Your task to perform on an android device: delete location history Image 0: 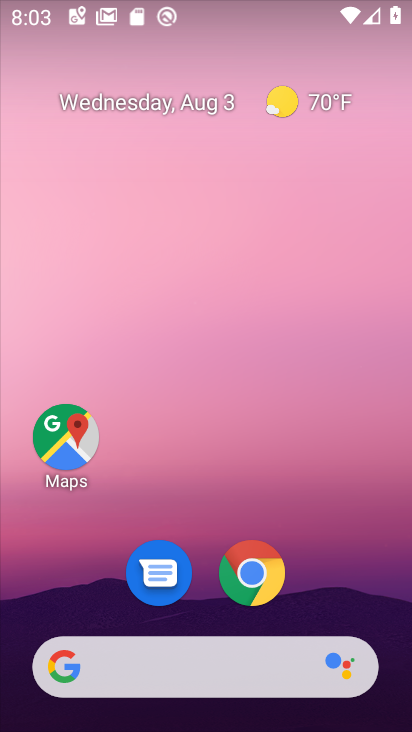
Step 0: click (64, 442)
Your task to perform on an android device: delete location history Image 1: 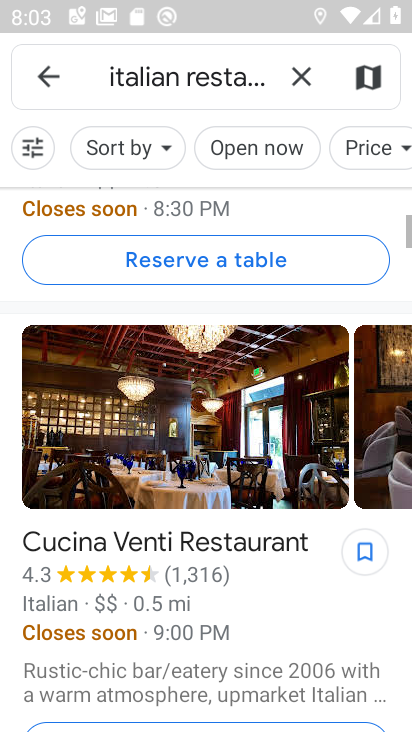
Step 1: click (298, 79)
Your task to perform on an android device: delete location history Image 2: 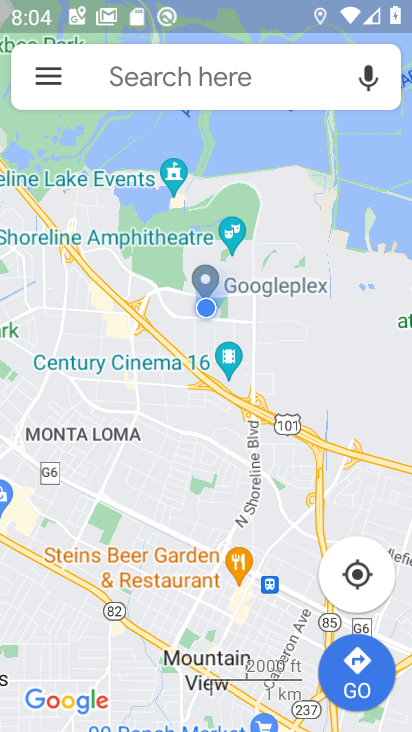
Step 2: click (41, 74)
Your task to perform on an android device: delete location history Image 3: 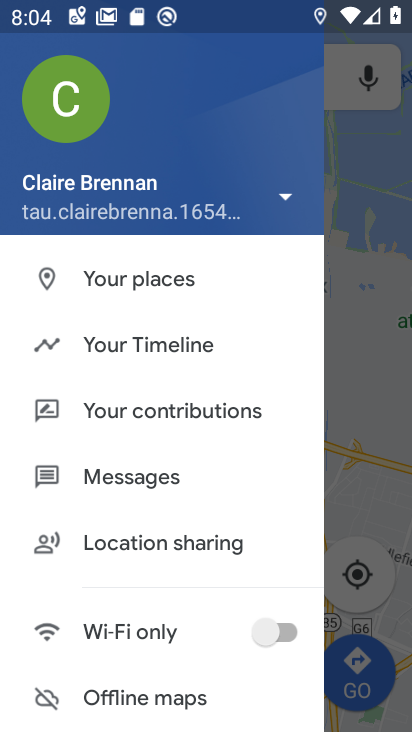
Step 3: click (118, 342)
Your task to perform on an android device: delete location history Image 4: 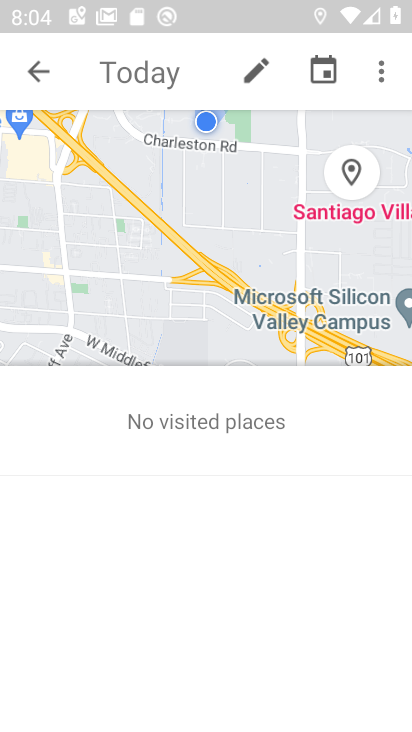
Step 4: click (386, 69)
Your task to perform on an android device: delete location history Image 5: 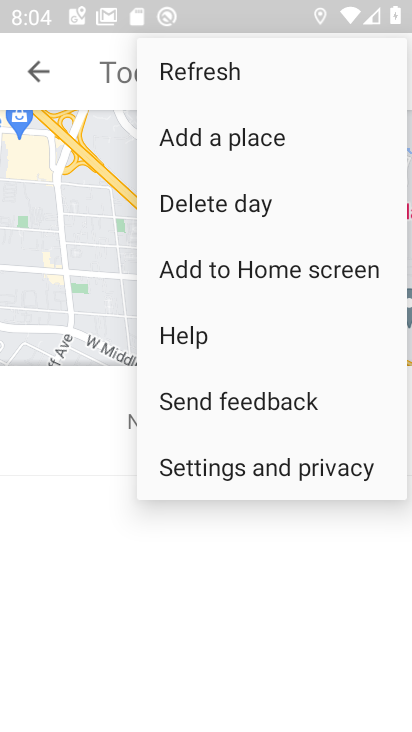
Step 5: click (213, 467)
Your task to perform on an android device: delete location history Image 6: 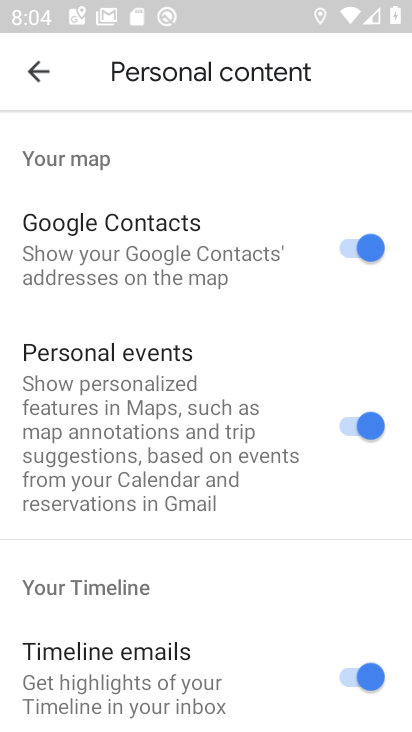
Step 6: drag from (180, 560) to (140, 100)
Your task to perform on an android device: delete location history Image 7: 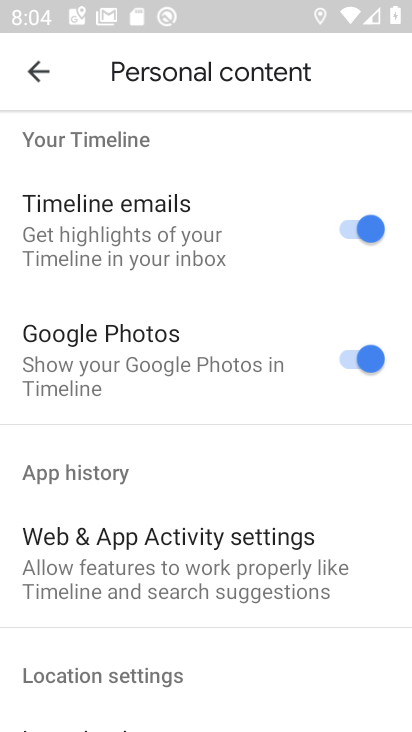
Step 7: drag from (157, 519) to (161, 113)
Your task to perform on an android device: delete location history Image 8: 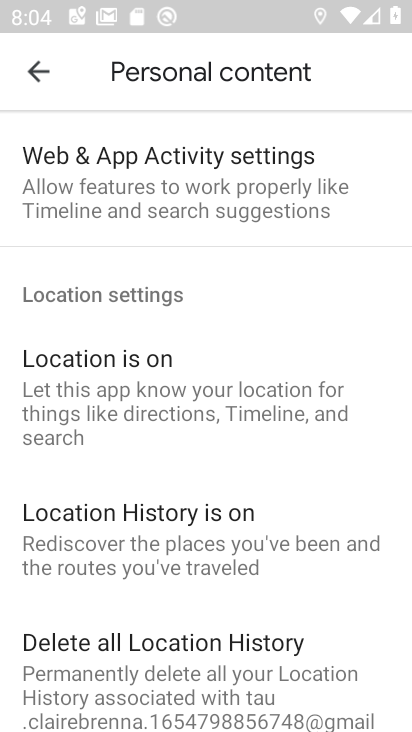
Step 8: drag from (145, 558) to (161, 292)
Your task to perform on an android device: delete location history Image 9: 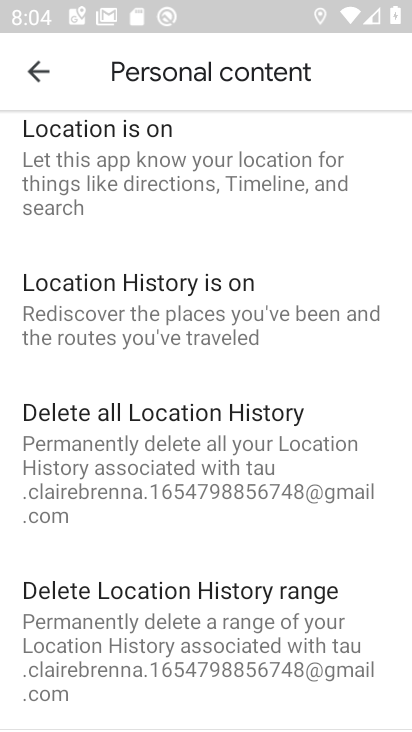
Step 9: click (145, 440)
Your task to perform on an android device: delete location history Image 10: 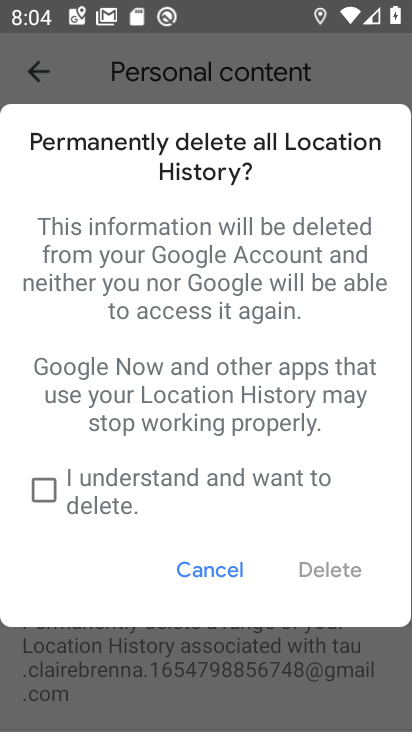
Step 10: click (56, 492)
Your task to perform on an android device: delete location history Image 11: 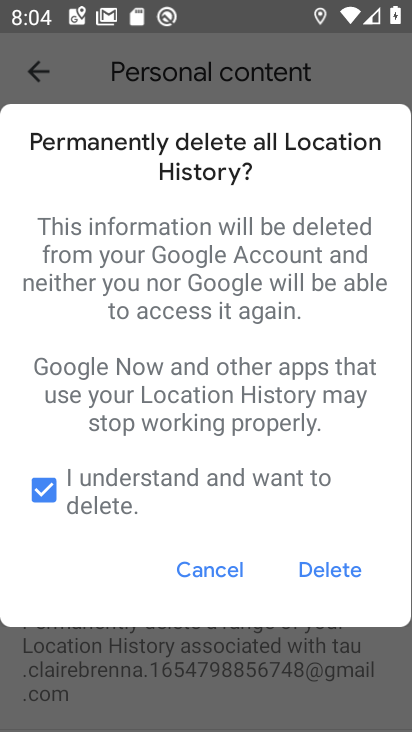
Step 11: click (313, 571)
Your task to perform on an android device: delete location history Image 12: 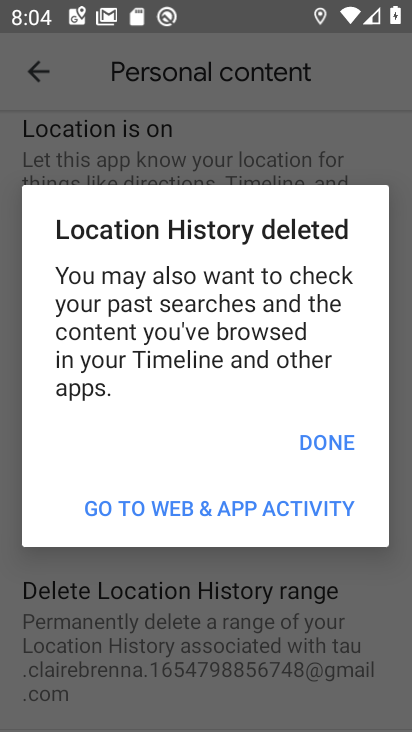
Step 12: click (323, 441)
Your task to perform on an android device: delete location history Image 13: 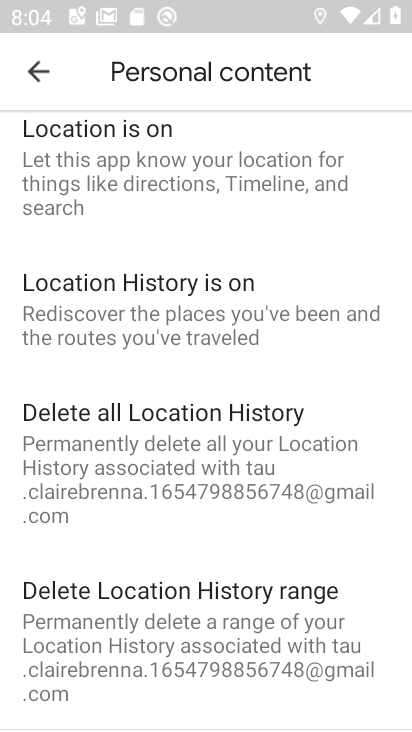
Step 13: task complete